Your task to perform on an android device: Open notification settings Image 0: 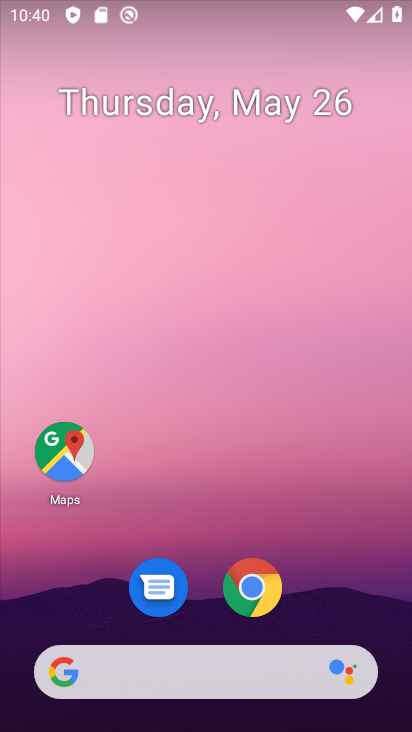
Step 0: drag from (276, 710) to (291, 164)
Your task to perform on an android device: Open notification settings Image 1: 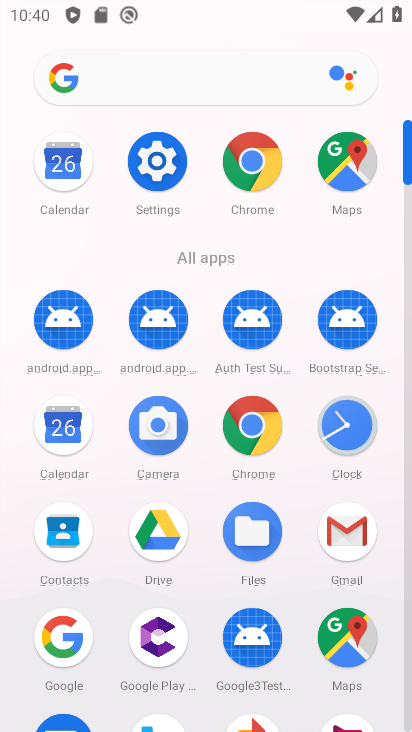
Step 1: click (162, 146)
Your task to perform on an android device: Open notification settings Image 2: 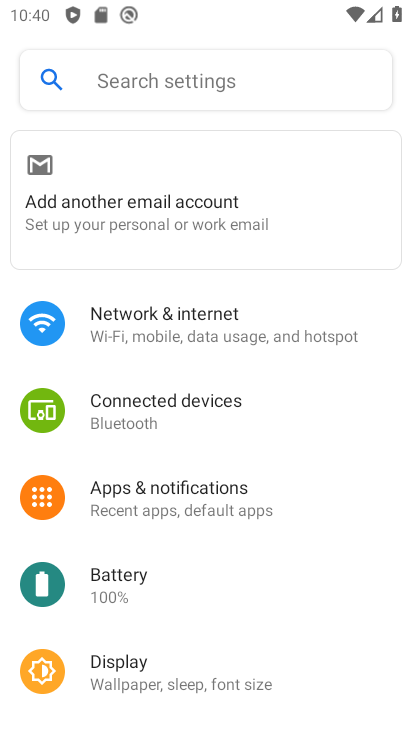
Step 2: click (160, 85)
Your task to perform on an android device: Open notification settings Image 3: 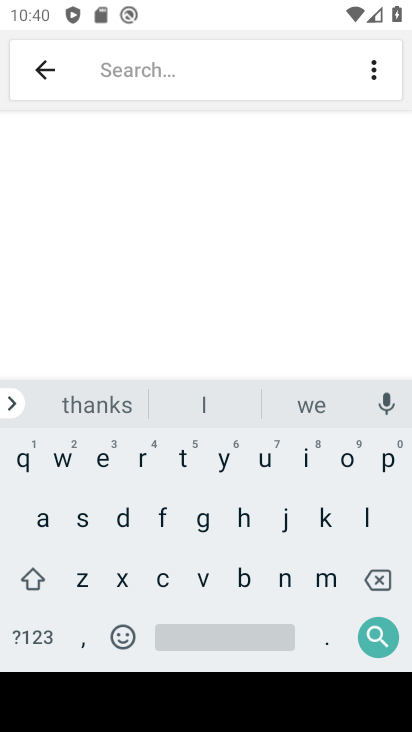
Step 3: click (285, 580)
Your task to perform on an android device: Open notification settings Image 4: 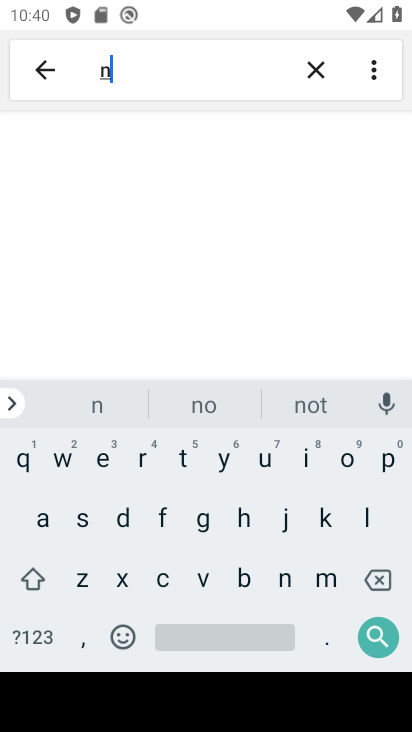
Step 4: click (355, 461)
Your task to perform on an android device: Open notification settings Image 5: 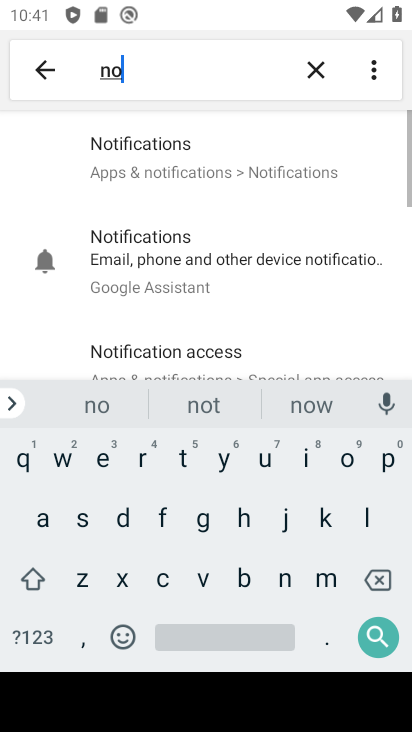
Step 5: click (202, 199)
Your task to perform on an android device: Open notification settings Image 6: 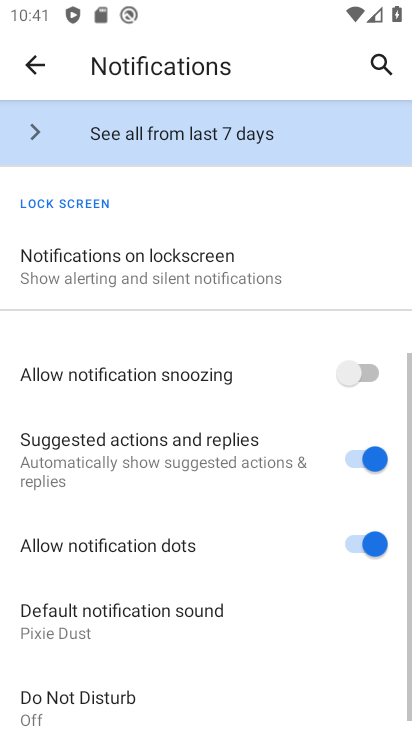
Step 6: click (154, 255)
Your task to perform on an android device: Open notification settings Image 7: 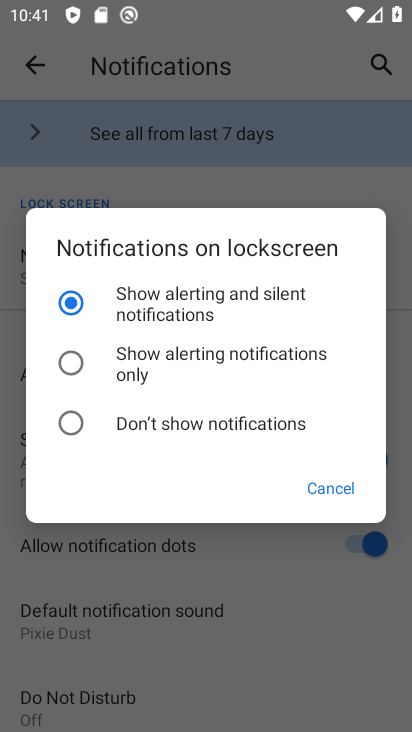
Step 7: task complete